Your task to perform on an android device: turn off picture-in-picture Image 0: 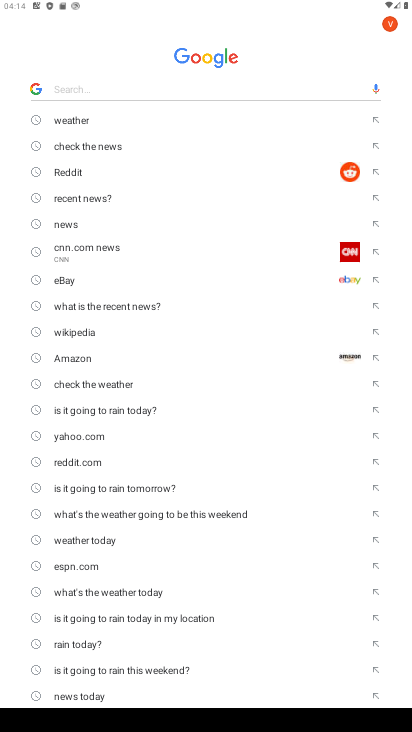
Step 0: press home button
Your task to perform on an android device: turn off picture-in-picture Image 1: 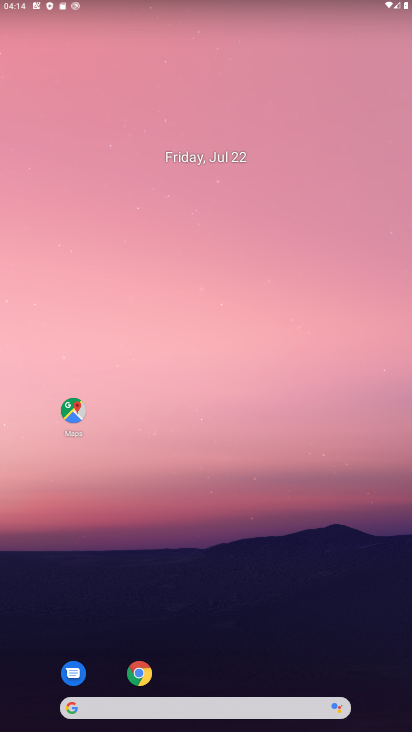
Step 1: click (135, 670)
Your task to perform on an android device: turn off picture-in-picture Image 2: 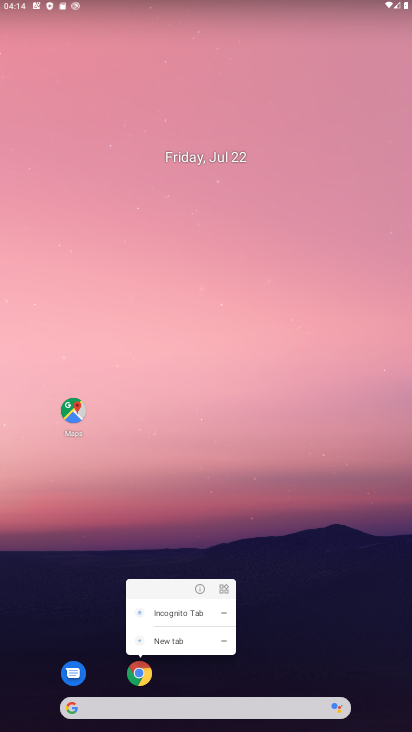
Step 2: click (198, 584)
Your task to perform on an android device: turn off picture-in-picture Image 3: 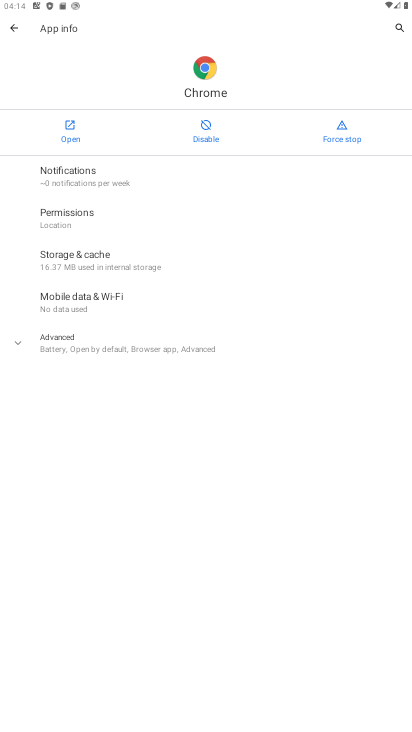
Step 3: click (16, 341)
Your task to perform on an android device: turn off picture-in-picture Image 4: 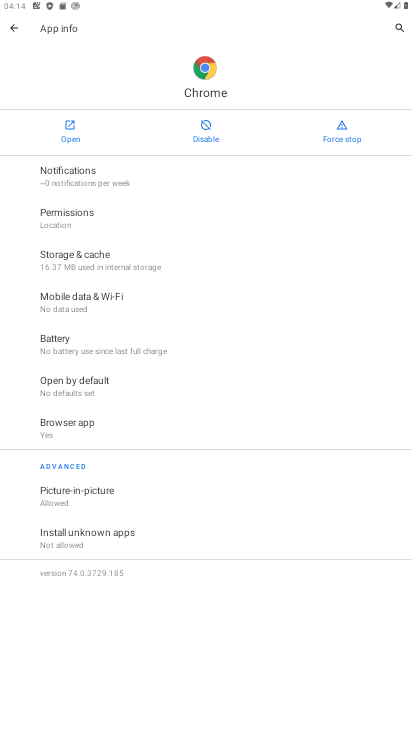
Step 4: click (86, 497)
Your task to perform on an android device: turn off picture-in-picture Image 5: 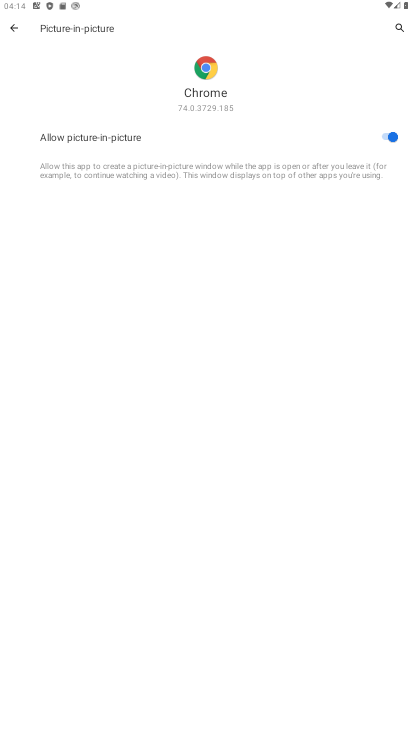
Step 5: click (386, 135)
Your task to perform on an android device: turn off picture-in-picture Image 6: 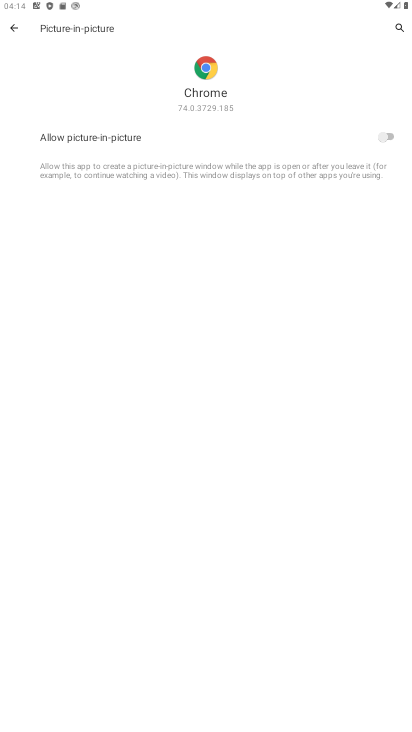
Step 6: task complete